Your task to perform on an android device: see tabs open on other devices in the chrome app Image 0: 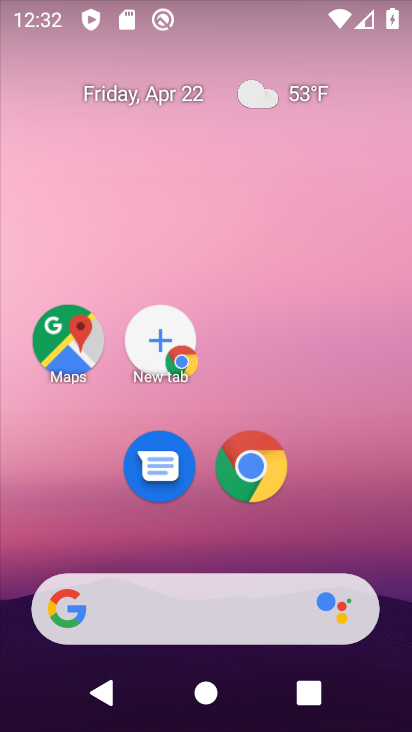
Step 0: drag from (344, 506) to (306, 53)
Your task to perform on an android device: see tabs open on other devices in the chrome app Image 1: 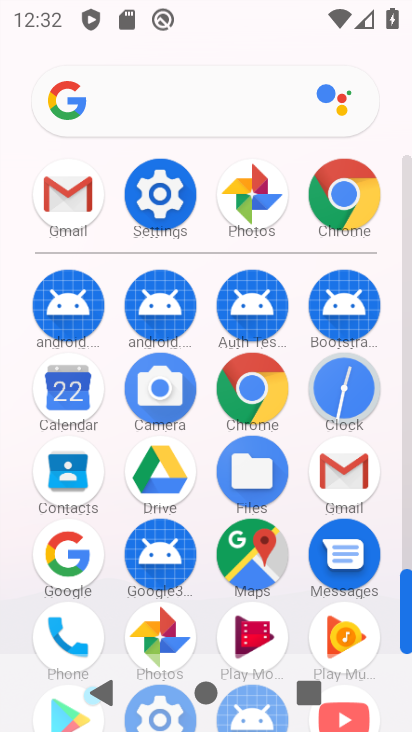
Step 1: click (160, 191)
Your task to perform on an android device: see tabs open on other devices in the chrome app Image 2: 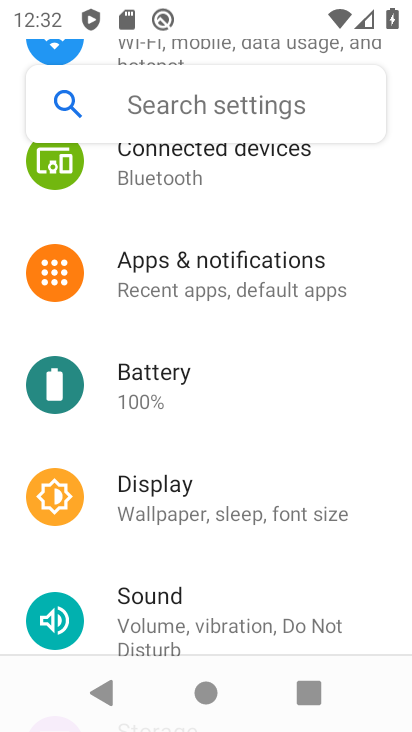
Step 2: click (229, 281)
Your task to perform on an android device: see tabs open on other devices in the chrome app Image 3: 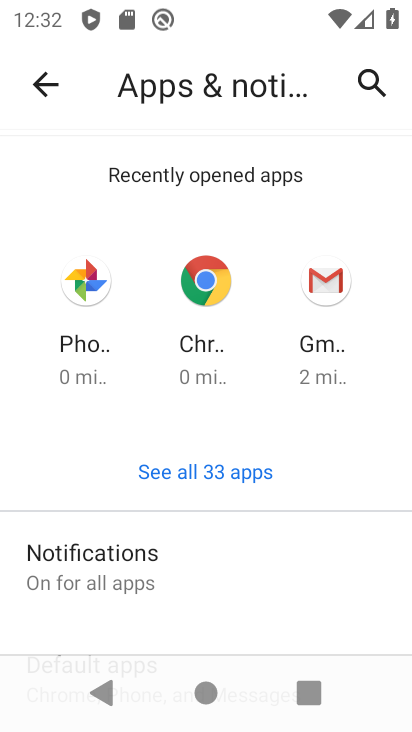
Step 3: drag from (307, 572) to (299, 206)
Your task to perform on an android device: see tabs open on other devices in the chrome app Image 4: 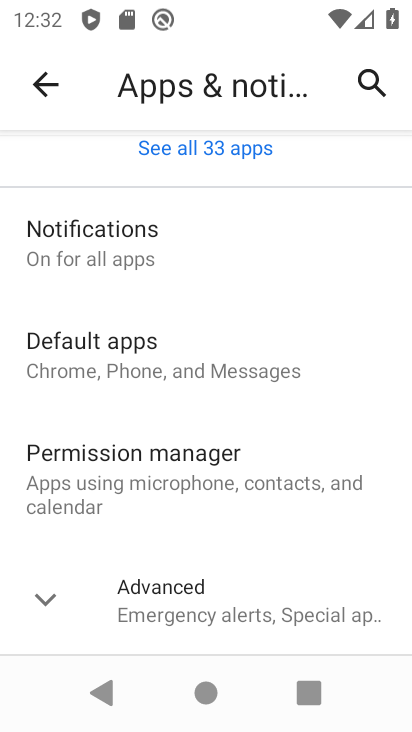
Step 4: click (37, 589)
Your task to perform on an android device: see tabs open on other devices in the chrome app Image 5: 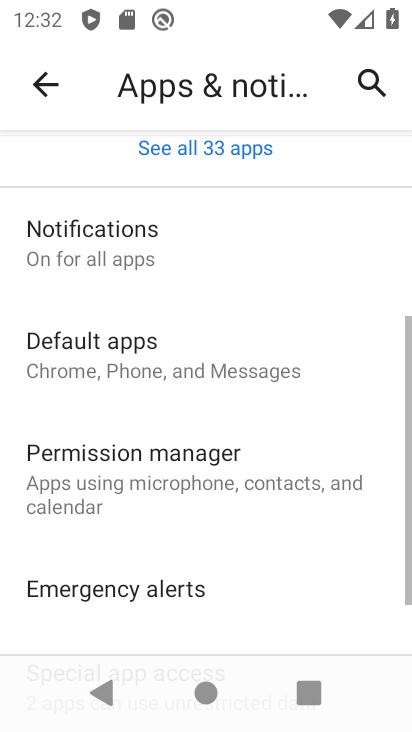
Step 5: drag from (301, 501) to (293, 156)
Your task to perform on an android device: see tabs open on other devices in the chrome app Image 6: 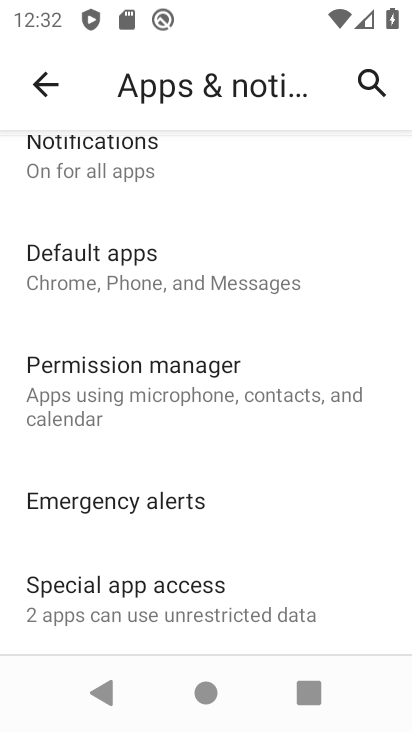
Step 6: drag from (293, 249) to (299, 473)
Your task to perform on an android device: see tabs open on other devices in the chrome app Image 7: 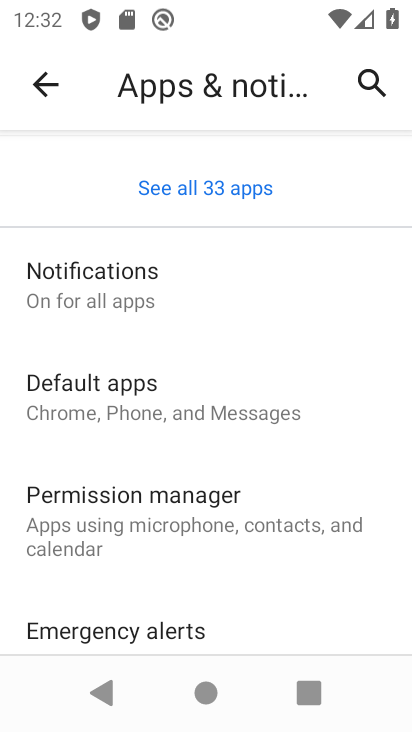
Step 7: drag from (258, 141) to (280, 463)
Your task to perform on an android device: see tabs open on other devices in the chrome app Image 8: 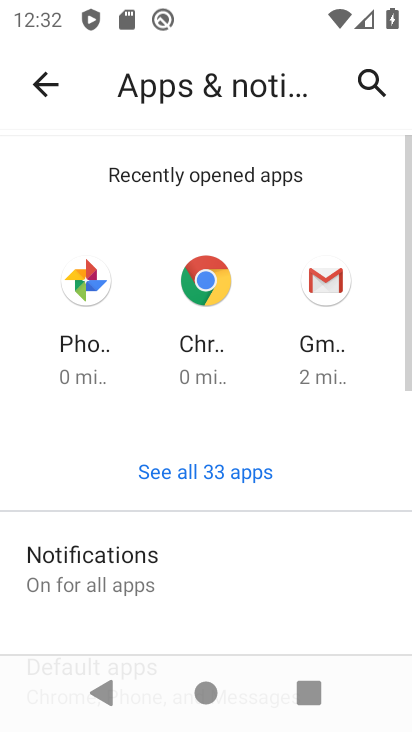
Step 8: drag from (280, 509) to (279, 197)
Your task to perform on an android device: see tabs open on other devices in the chrome app Image 9: 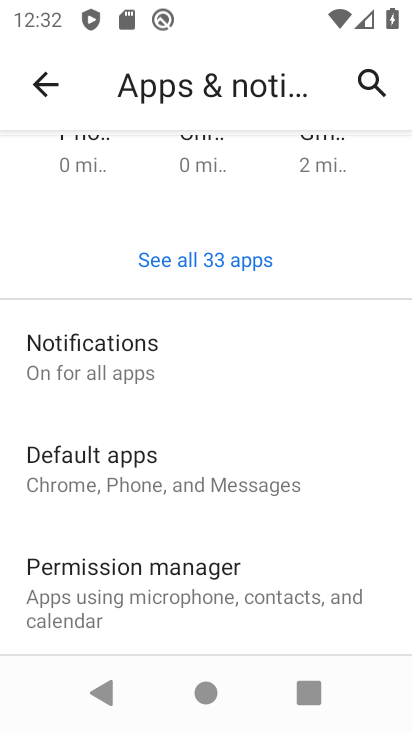
Step 9: drag from (302, 426) to (296, 175)
Your task to perform on an android device: see tabs open on other devices in the chrome app Image 10: 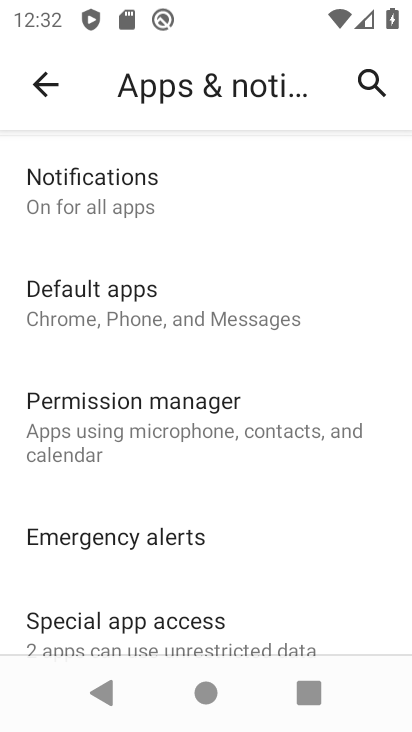
Step 10: press back button
Your task to perform on an android device: see tabs open on other devices in the chrome app Image 11: 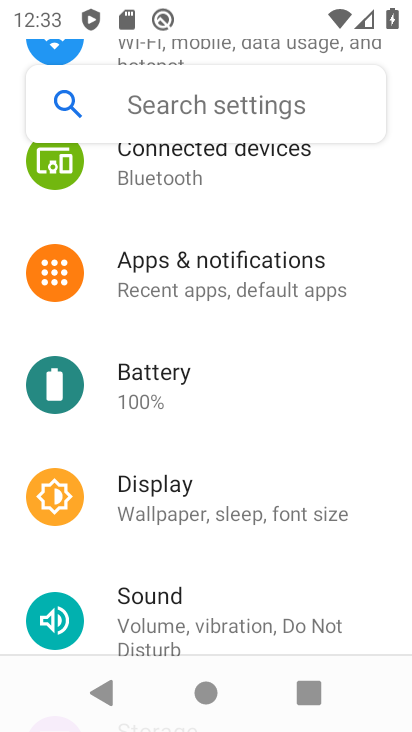
Step 11: press back button
Your task to perform on an android device: see tabs open on other devices in the chrome app Image 12: 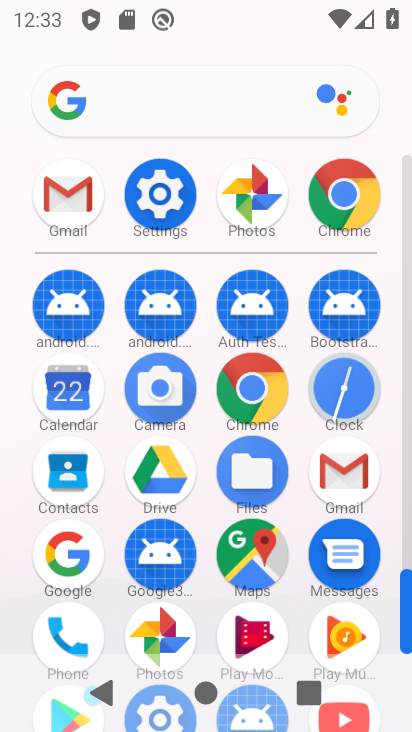
Step 12: click (343, 193)
Your task to perform on an android device: see tabs open on other devices in the chrome app Image 13: 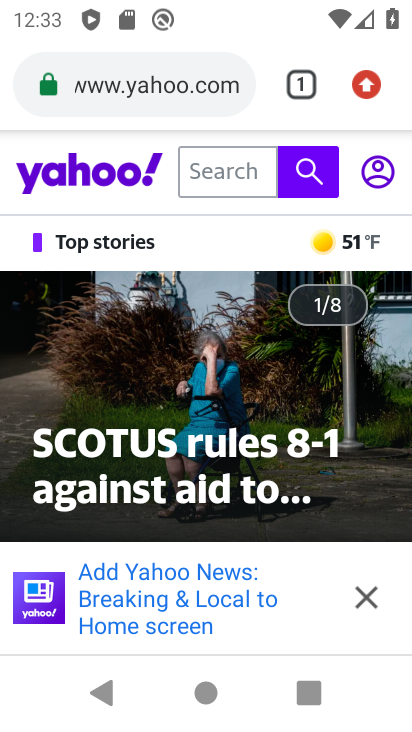
Step 13: task complete